Your task to perform on an android device: Is it going to rain tomorrow? Image 0: 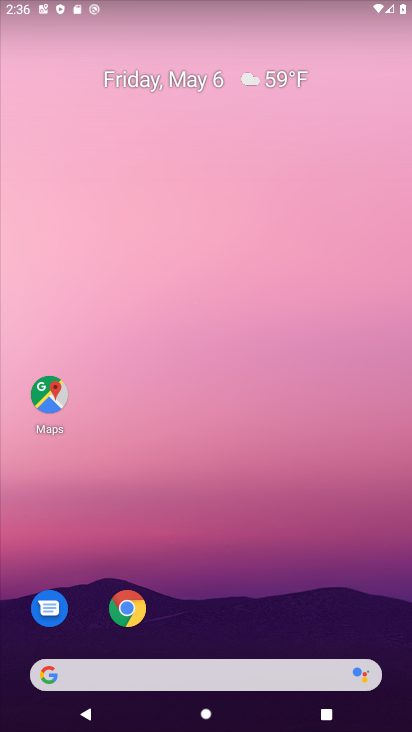
Step 0: click (276, 76)
Your task to perform on an android device: Is it going to rain tomorrow? Image 1: 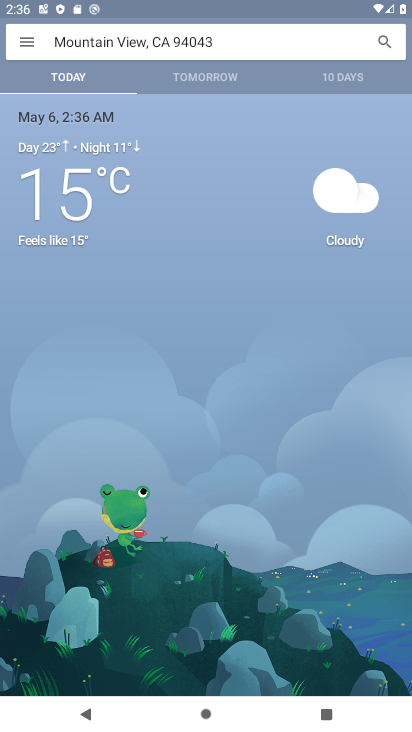
Step 1: task complete